Your task to perform on an android device: Open network settings Image 0: 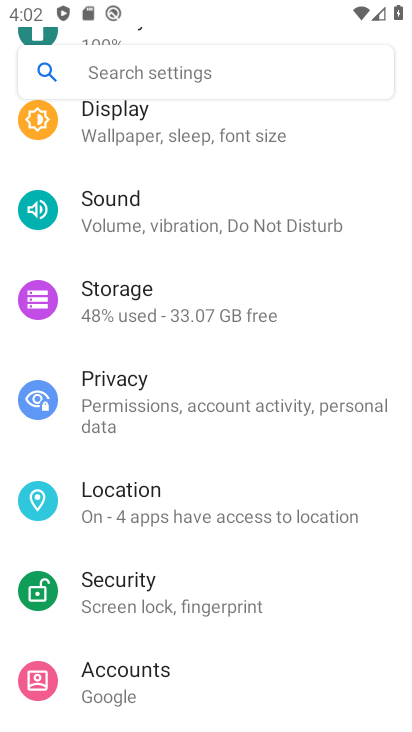
Step 0: drag from (209, 242) to (225, 455)
Your task to perform on an android device: Open network settings Image 1: 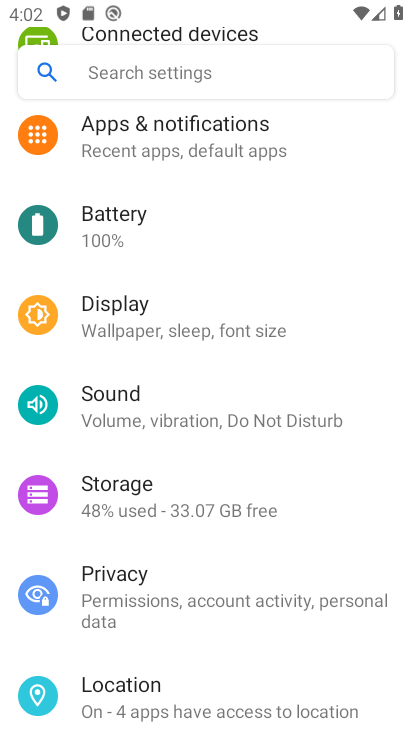
Step 1: drag from (195, 236) to (254, 491)
Your task to perform on an android device: Open network settings Image 2: 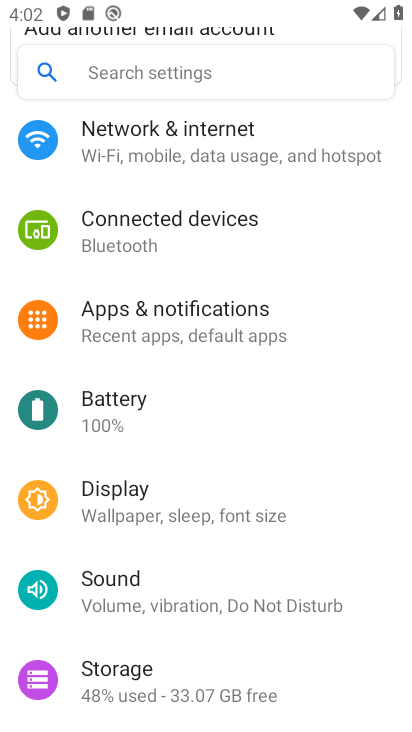
Step 2: drag from (214, 193) to (262, 465)
Your task to perform on an android device: Open network settings Image 3: 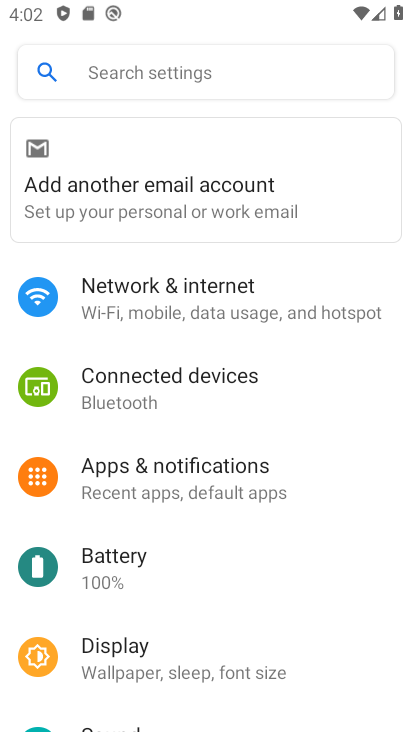
Step 3: click (242, 318)
Your task to perform on an android device: Open network settings Image 4: 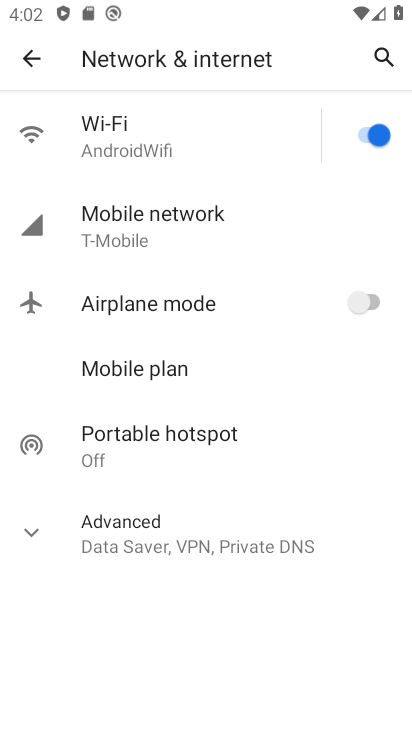
Step 4: click (175, 202)
Your task to perform on an android device: Open network settings Image 5: 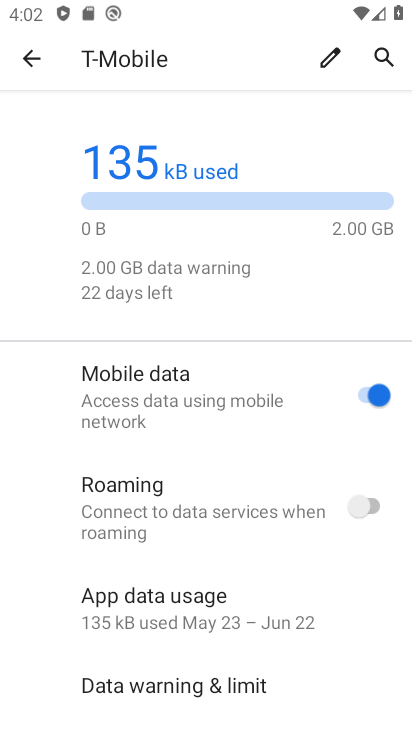
Step 5: task complete